Your task to perform on an android device: Play the last video I watched on Youtube Image 0: 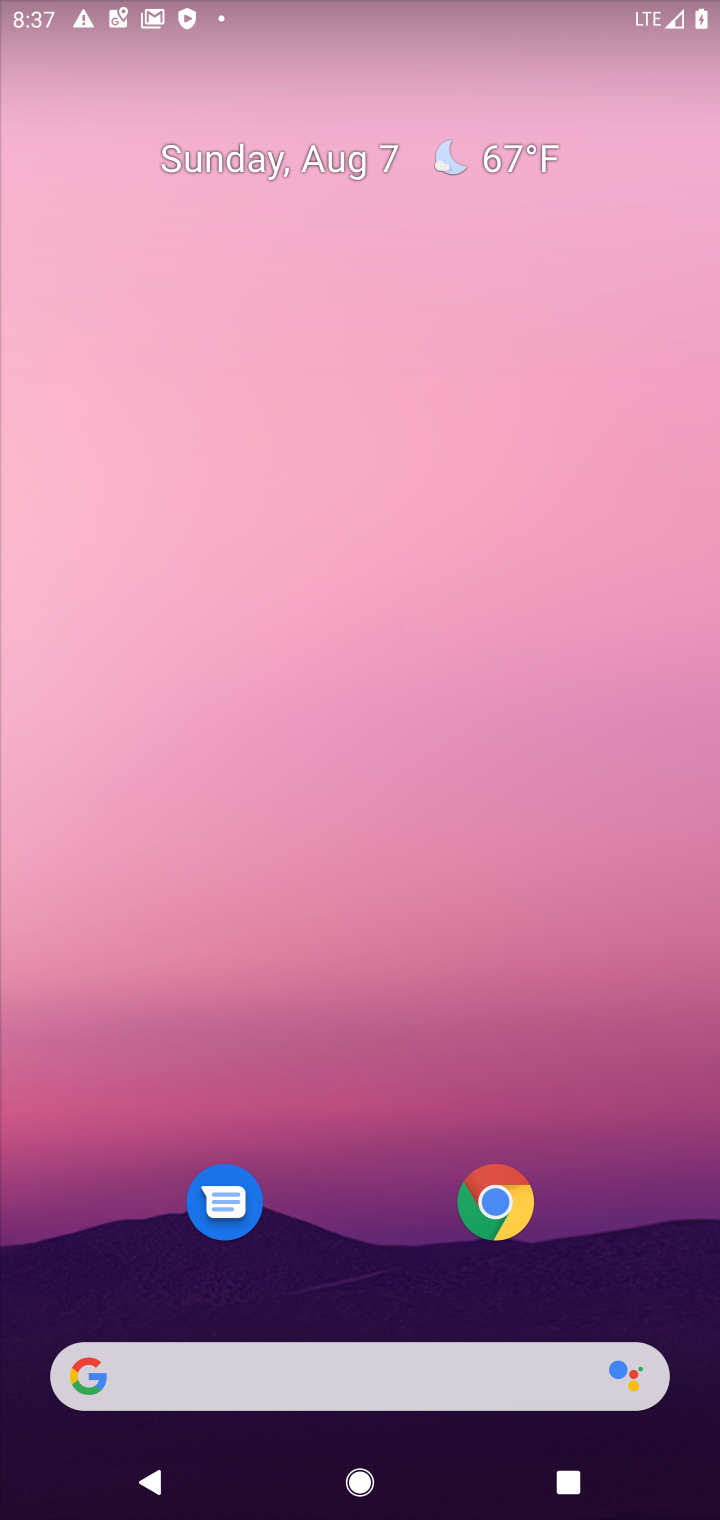
Step 0: drag from (346, 1292) to (346, 449)
Your task to perform on an android device: Play the last video I watched on Youtube Image 1: 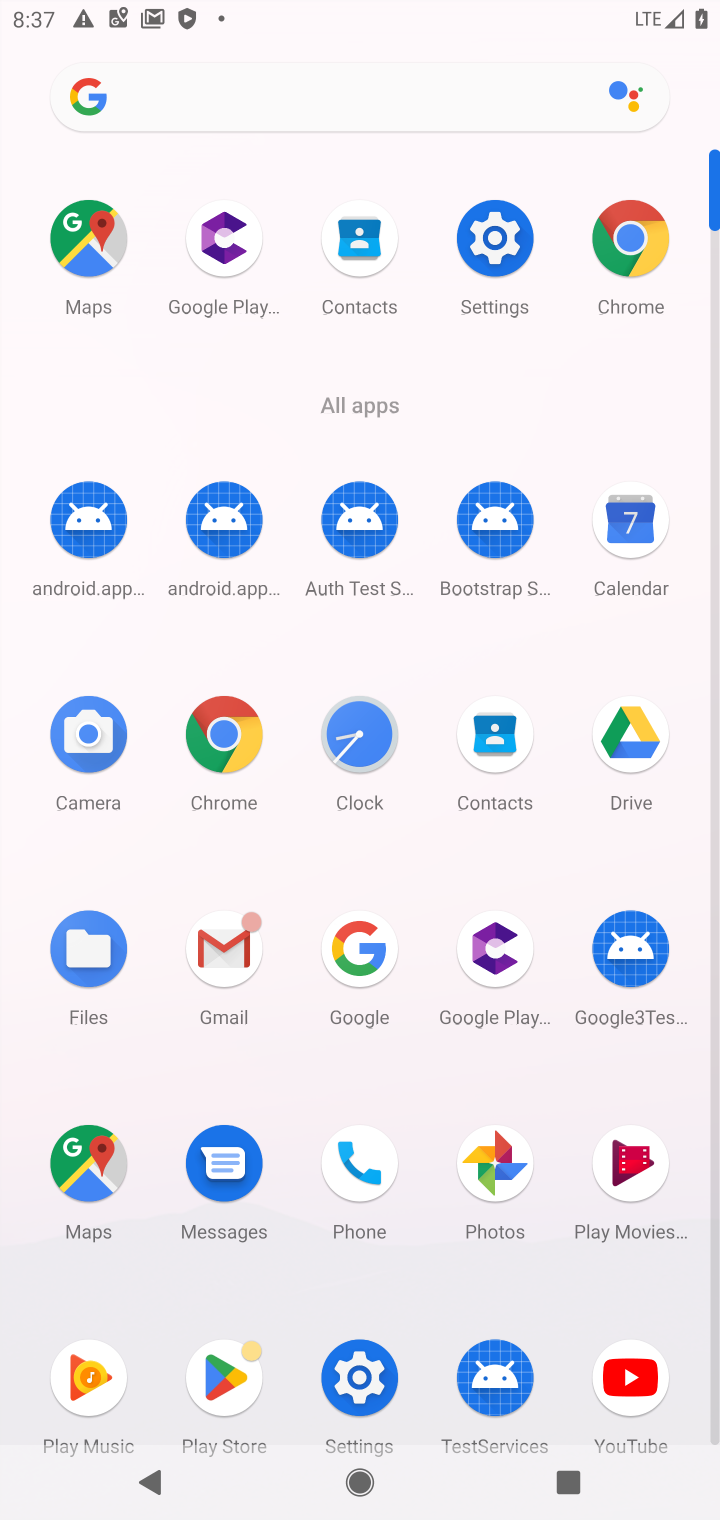
Step 1: click (626, 1379)
Your task to perform on an android device: Play the last video I watched on Youtube Image 2: 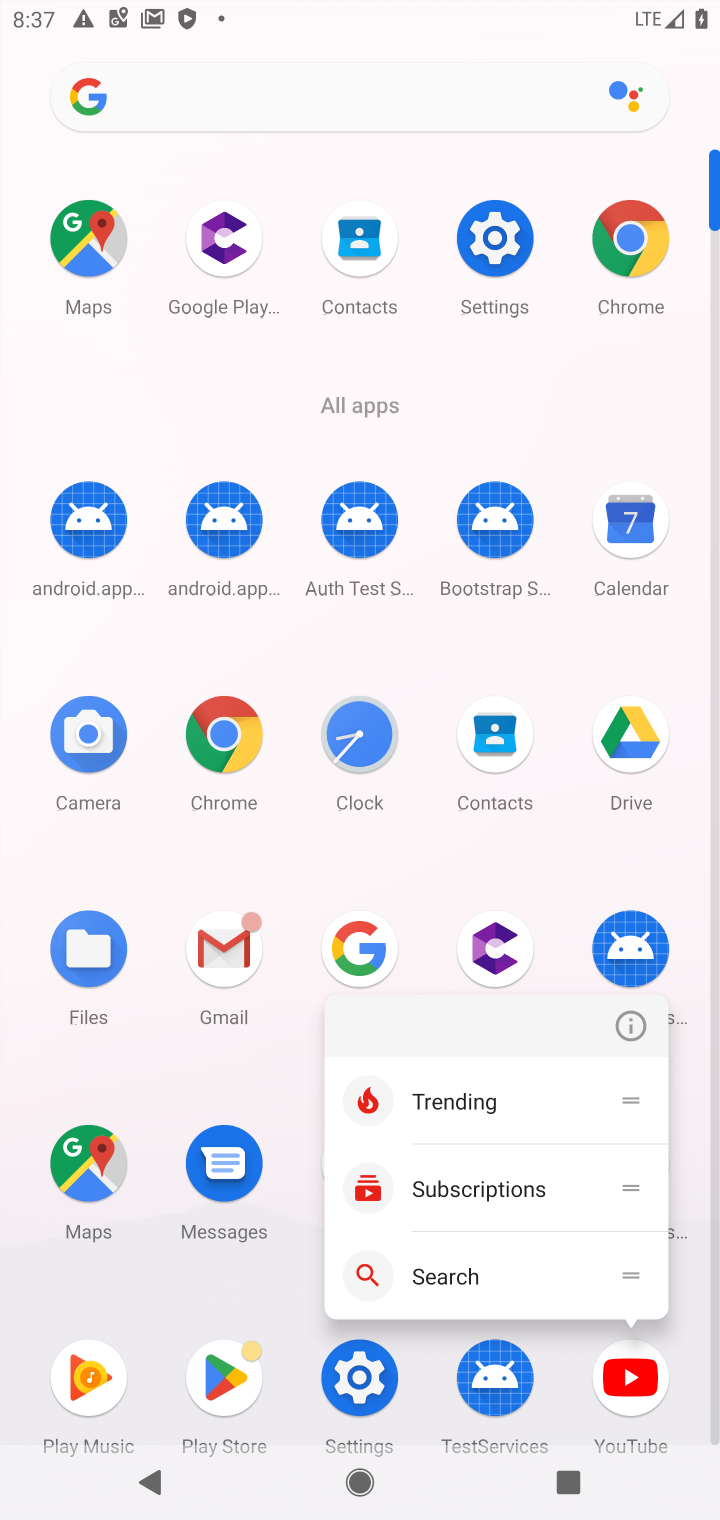
Step 2: click (626, 1379)
Your task to perform on an android device: Play the last video I watched on Youtube Image 3: 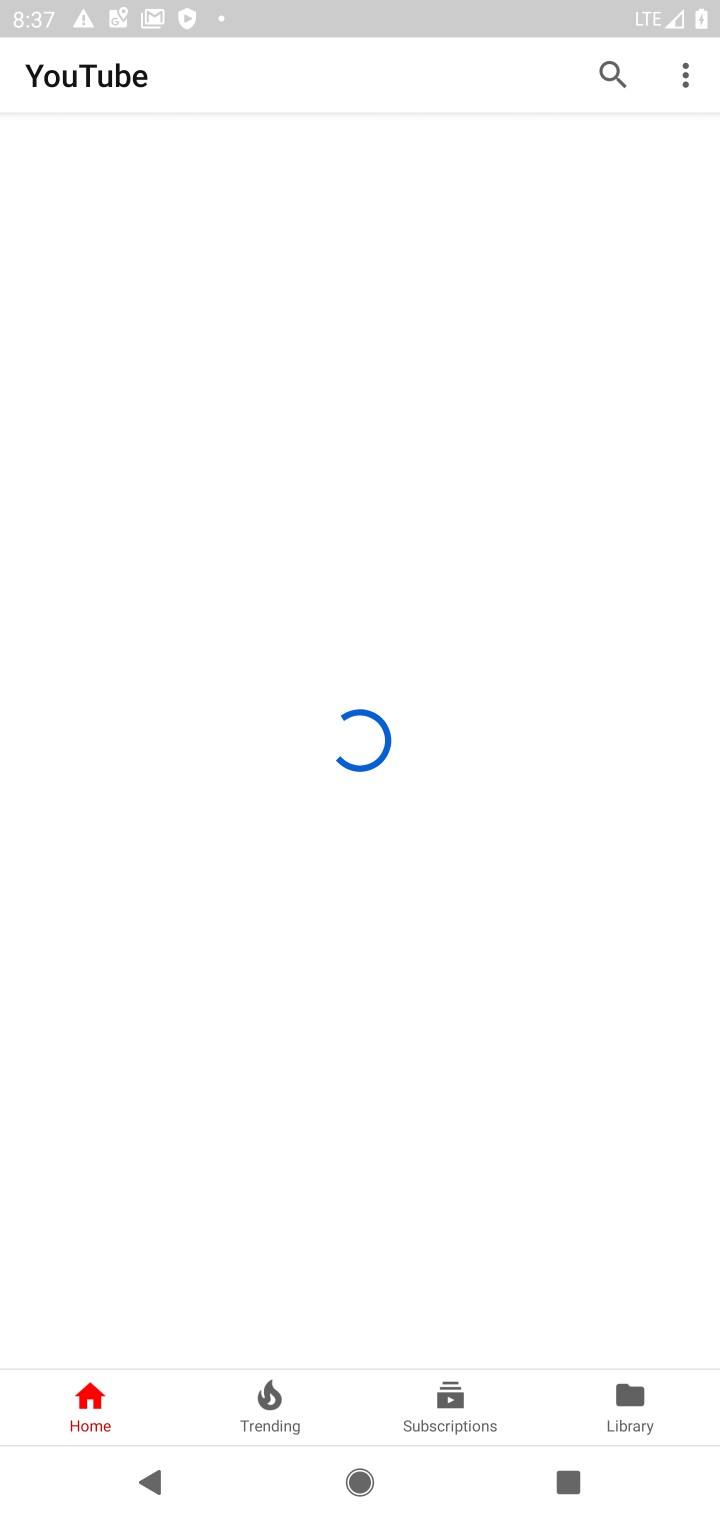
Step 3: click (637, 1401)
Your task to perform on an android device: Play the last video I watched on Youtube Image 4: 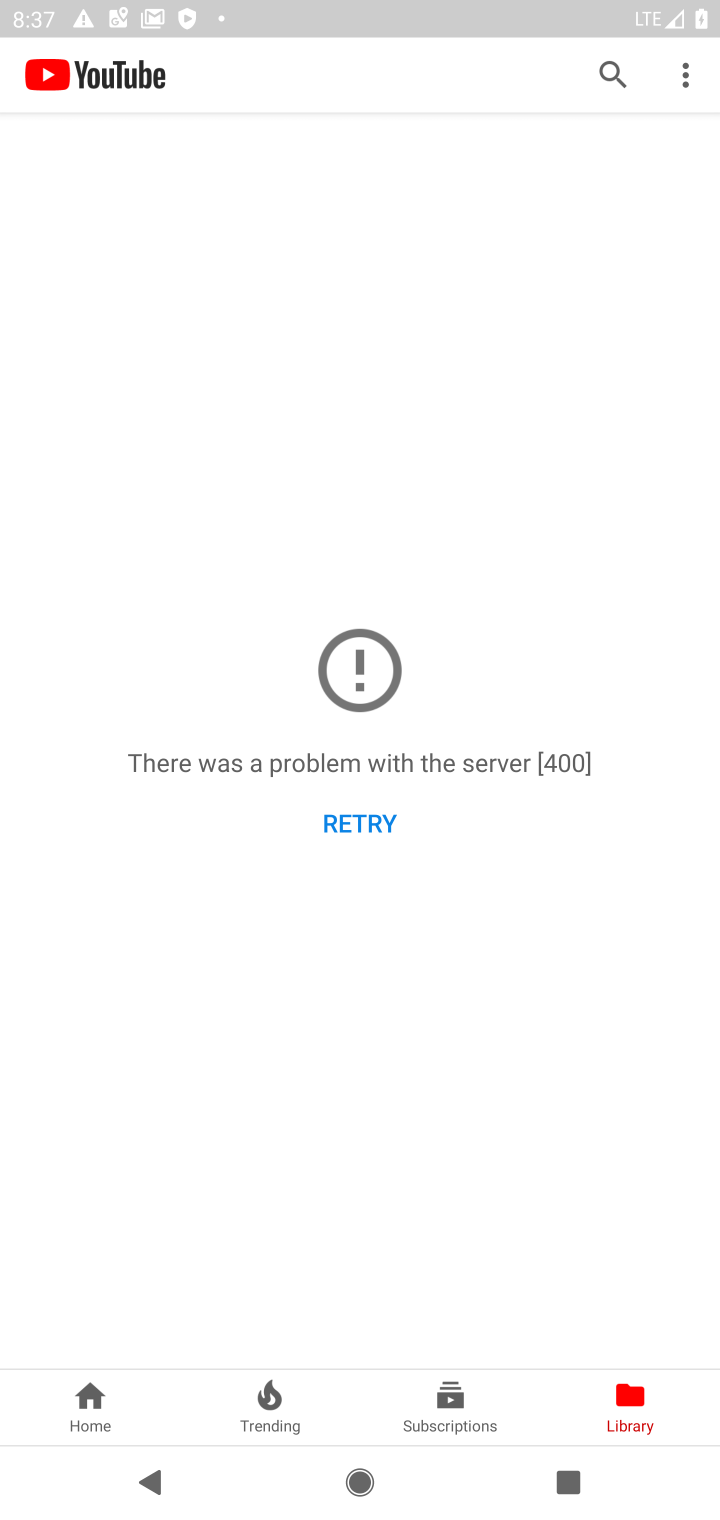
Step 4: click (351, 840)
Your task to perform on an android device: Play the last video I watched on Youtube Image 5: 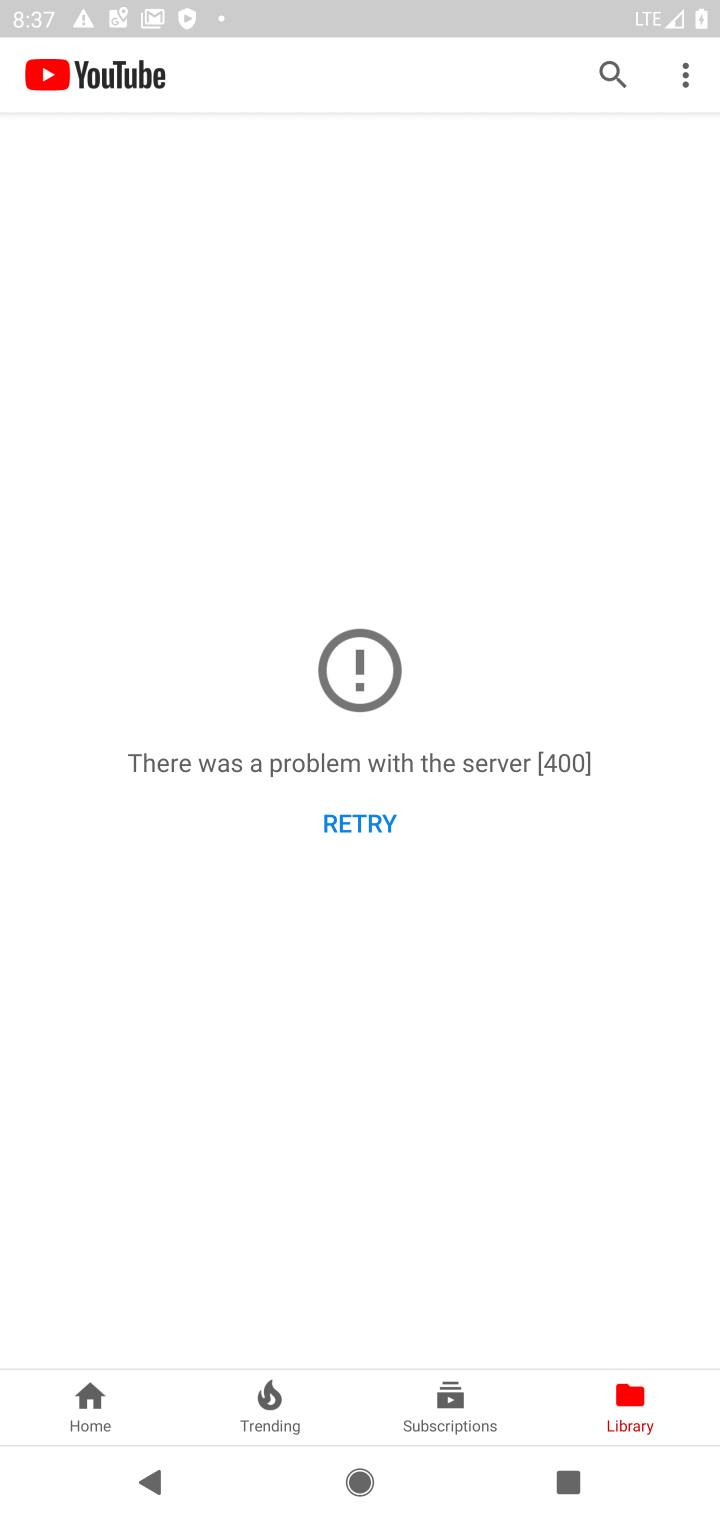
Step 5: click (351, 840)
Your task to perform on an android device: Play the last video I watched on Youtube Image 6: 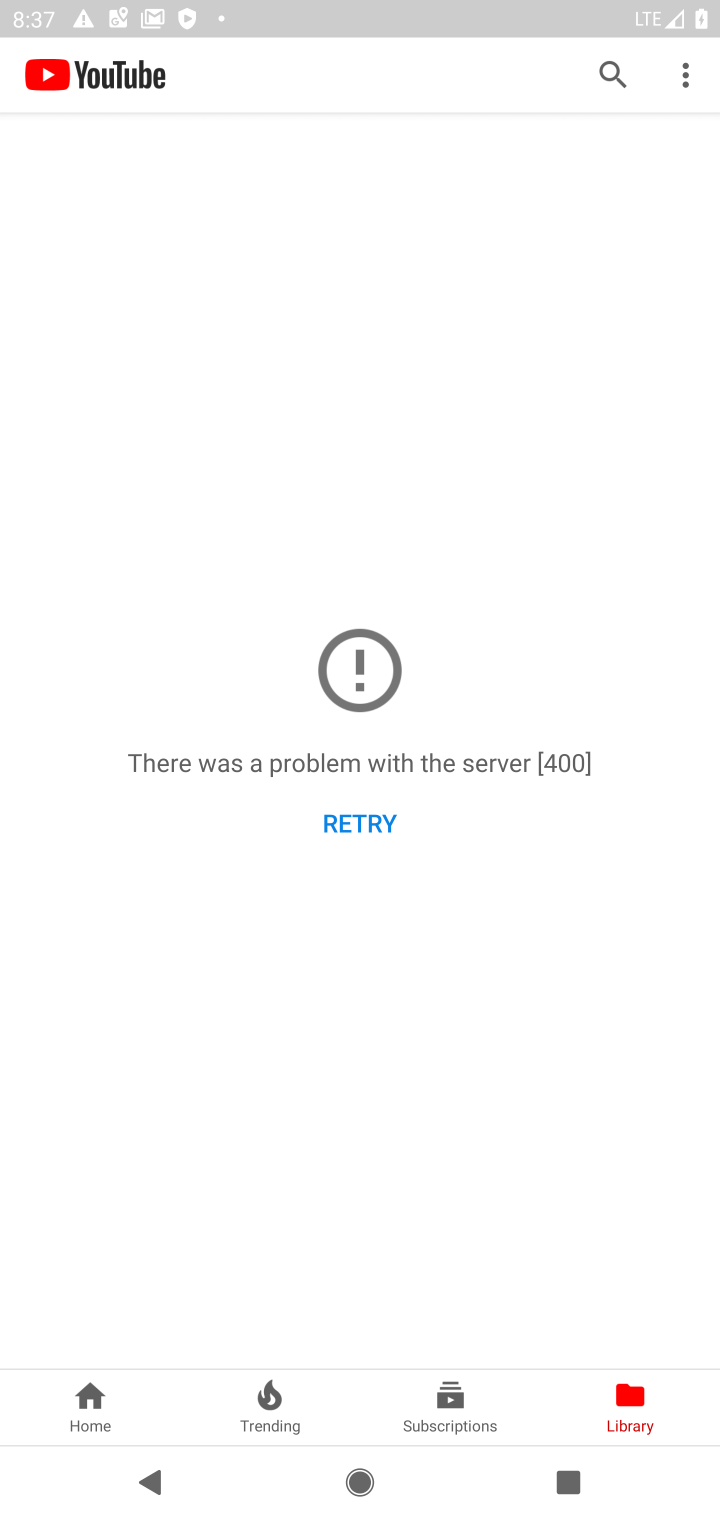
Step 6: click (365, 800)
Your task to perform on an android device: Play the last video I watched on Youtube Image 7: 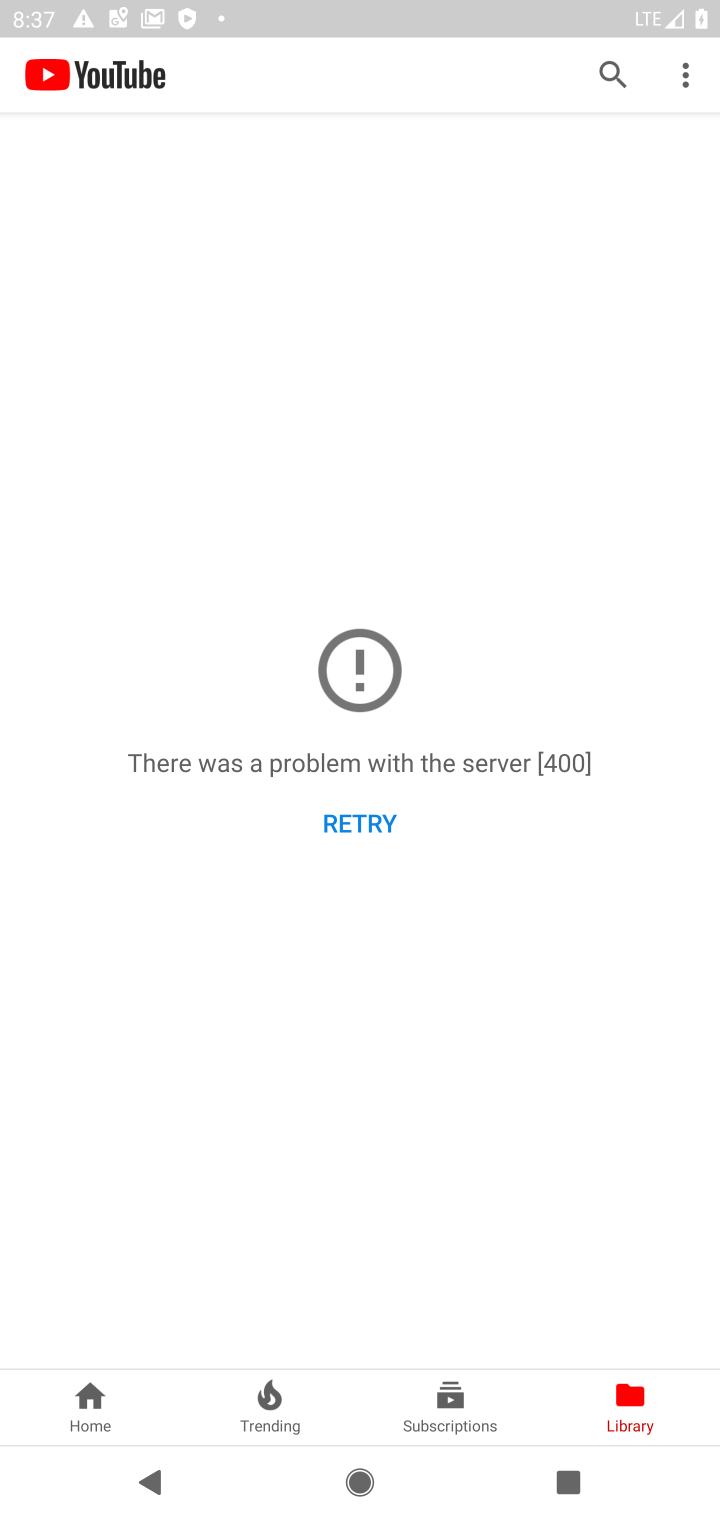
Step 7: task complete